Your task to perform on an android device: turn on data saver in the chrome app Image 0: 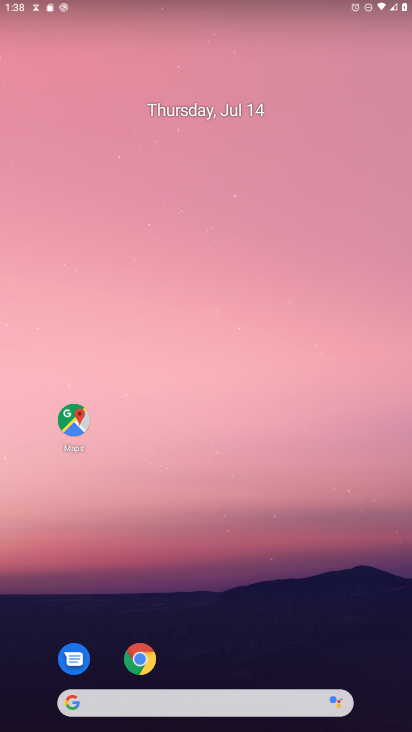
Step 0: click (137, 662)
Your task to perform on an android device: turn on data saver in the chrome app Image 1: 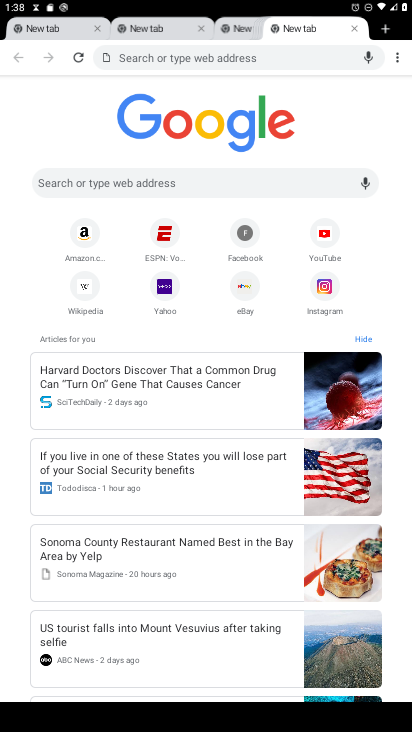
Step 1: click (397, 53)
Your task to perform on an android device: turn on data saver in the chrome app Image 2: 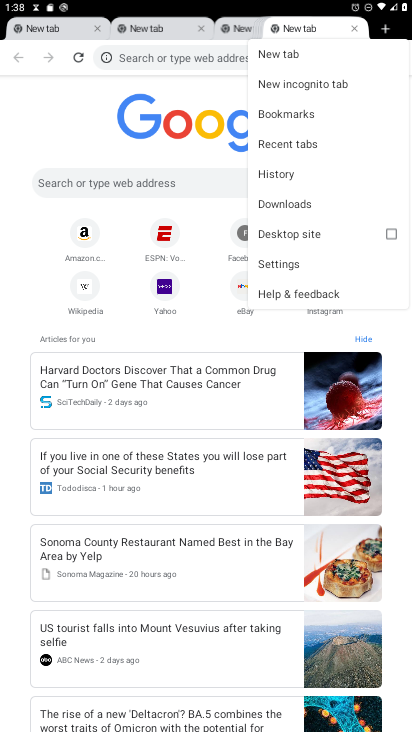
Step 2: click (294, 269)
Your task to perform on an android device: turn on data saver in the chrome app Image 3: 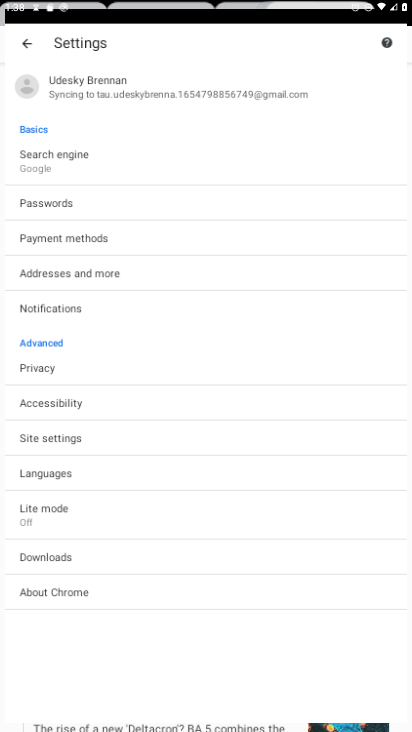
Step 3: click (288, 265)
Your task to perform on an android device: turn on data saver in the chrome app Image 4: 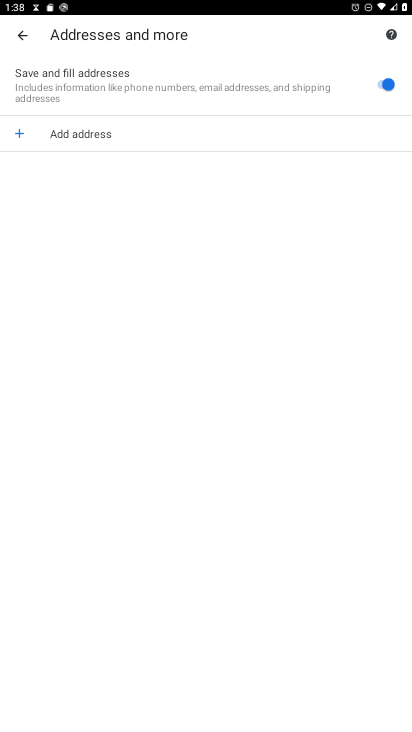
Step 4: click (17, 32)
Your task to perform on an android device: turn on data saver in the chrome app Image 5: 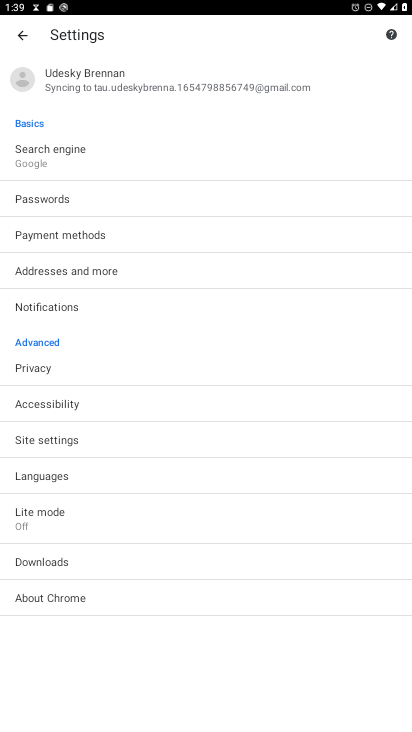
Step 5: click (56, 399)
Your task to perform on an android device: turn on data saver in the chrome app Image 6: 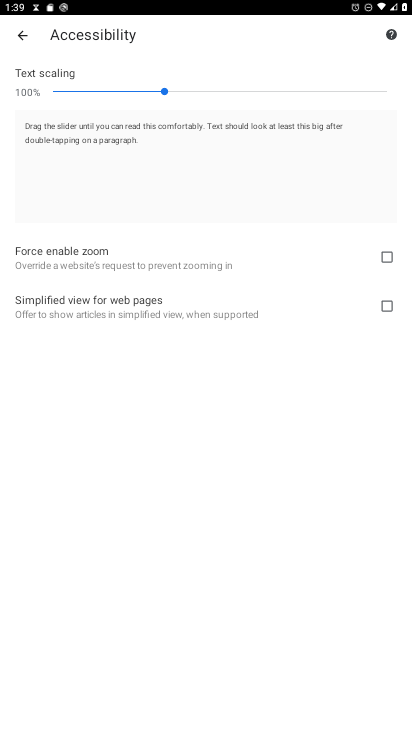
Step 6: click (23, 35)
Your task to perform on an android device: turn on data saver in the chrome app Image 7: 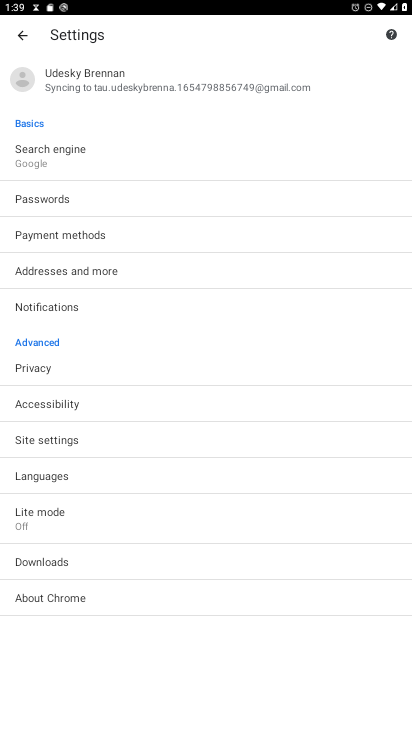
Step 7: click (20, 41)
Your task to perform on an android device: turn on data saver in the chrome app Image 8: 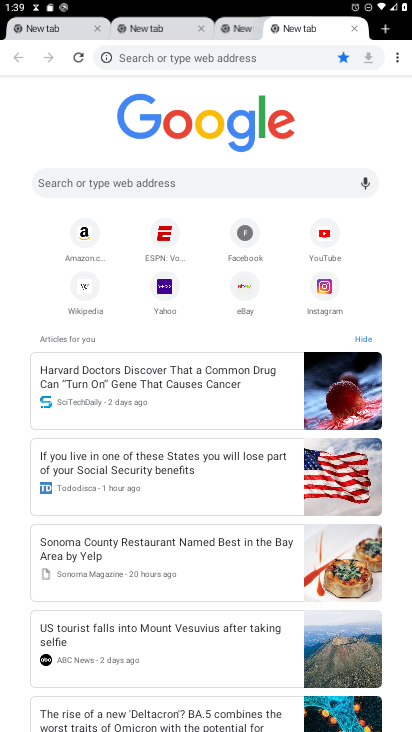
Step 8: task complete